Your task to perform on an android device: Open the map Image 0: 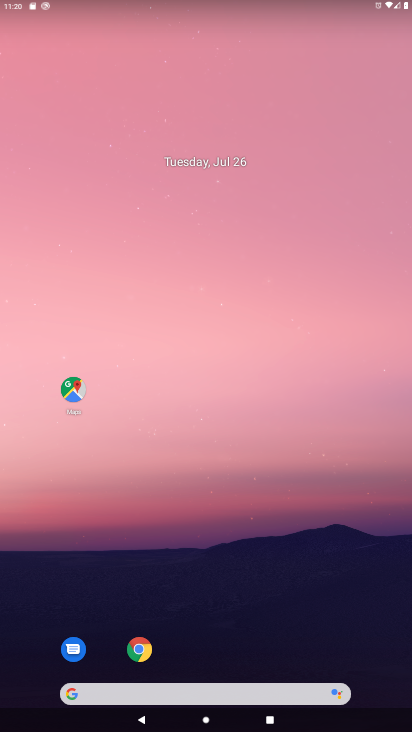
Step 0: click (74, 383)
Your task to perform on an android device: Open the map Image 1: 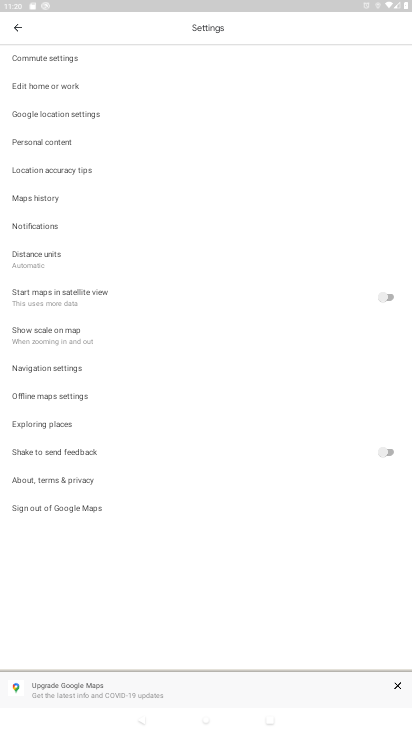
Step 1: click (13, 23)
Your task to perform on an android device: Open the map Image 2: 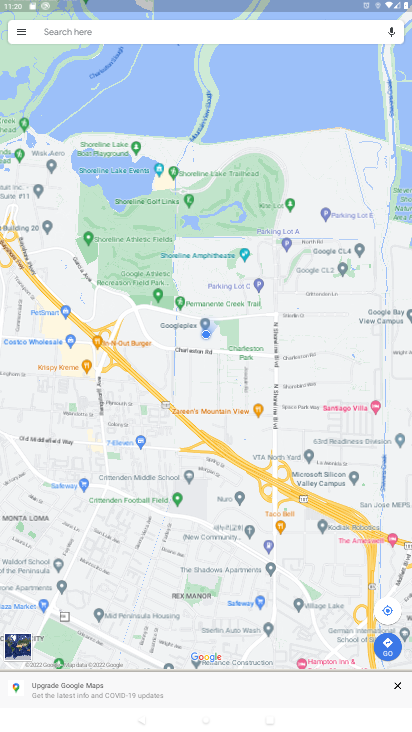
Step 2: task complete